Your task to perform on an android device: turn on data saver in the chrome app Image 0: 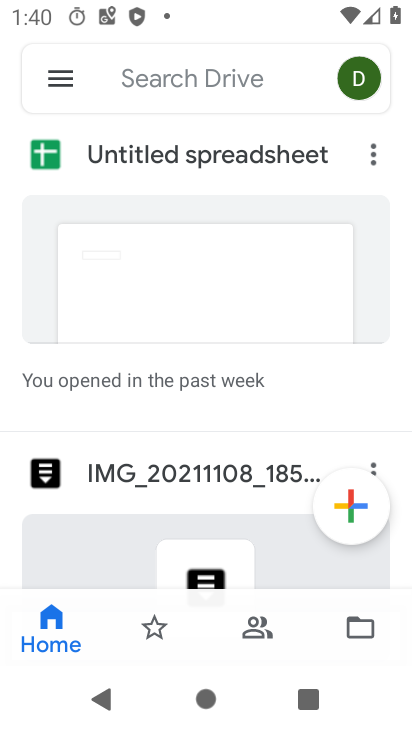
Step 0: press home button
Your task to perform on an android device: turn on data saver in the chrome app Image 1: 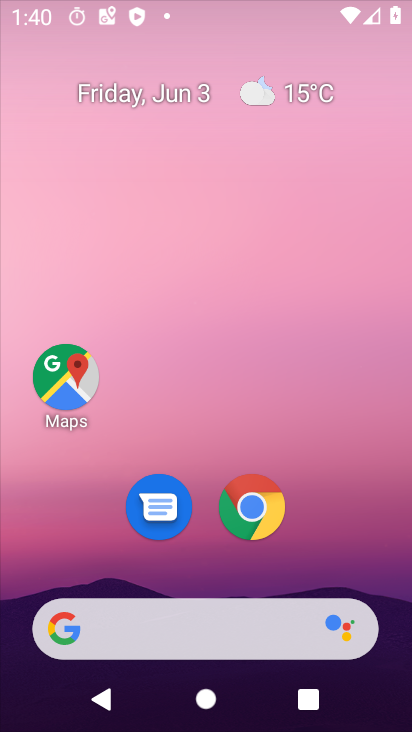
Step 1: drag from (395, 643) to (332, 15)
Your task to perform on an android device: turn on data saver in the chrome app Image 2: 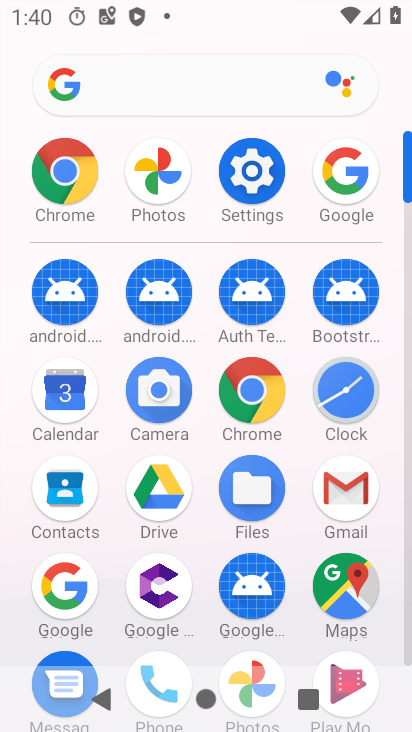
Step 2: click (258, 398)
Your task to perform on an android device: turn on data saver in the chrome app Image 3: 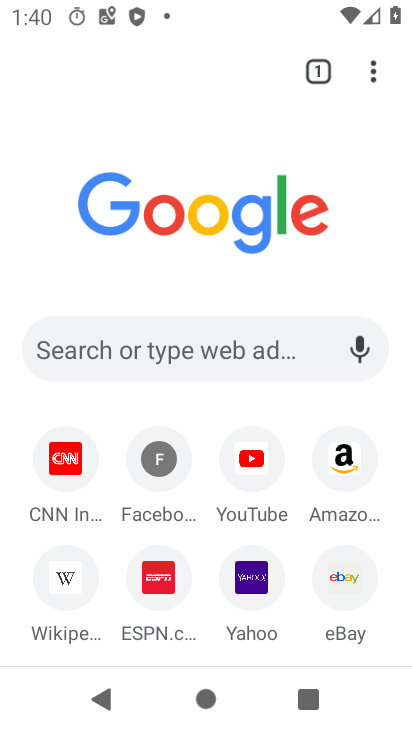
Step 3: click (377, 66)
Your task to perform on an android device: turn on data saver in the chrome app Image 4: 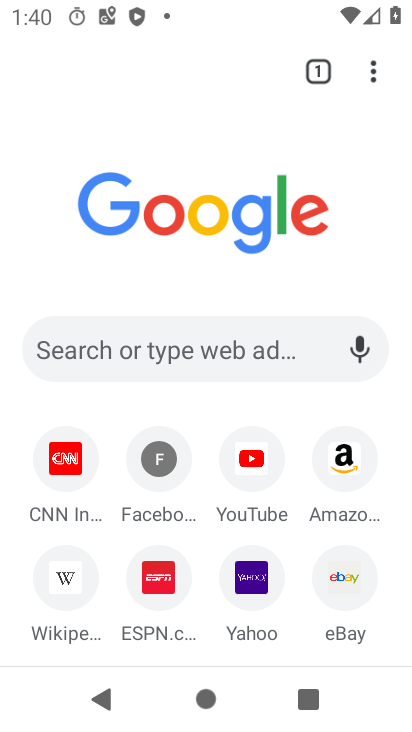
Step 4: click (373, 67)
Your task to perform on an android device: turn on data saver in the chrome app Image 5: 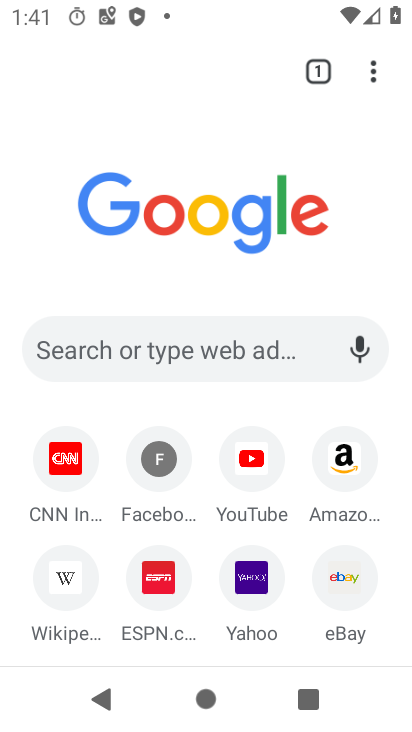
Step 5: click (368, 67)
Your task to perform on an android device: turn on data saver in the chrome app Image 6: 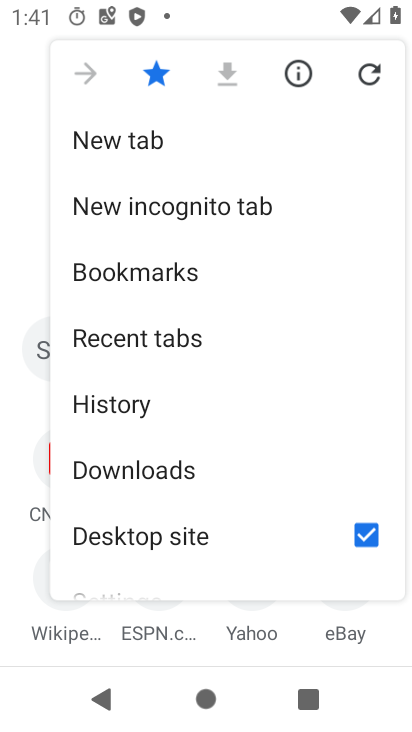
Step 6: drag from (219, 550) to (300, 178)
Your task to perform on an android device: turn on data saver in the chrome app Image 7: 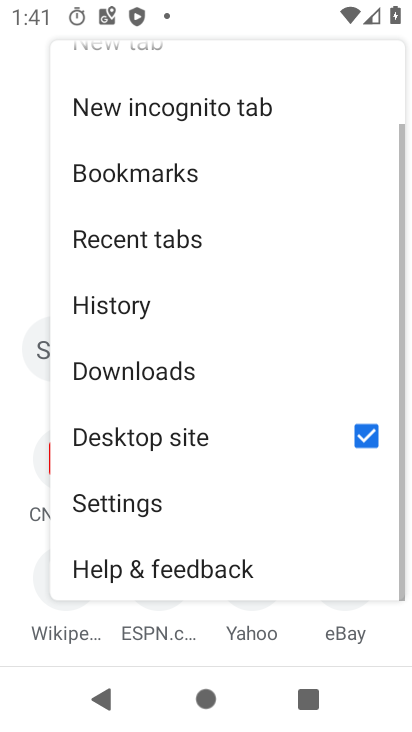
Step 7: click (146, 500)
Your task to perform on an android device: turn on data saver in the chrome app Image 8: 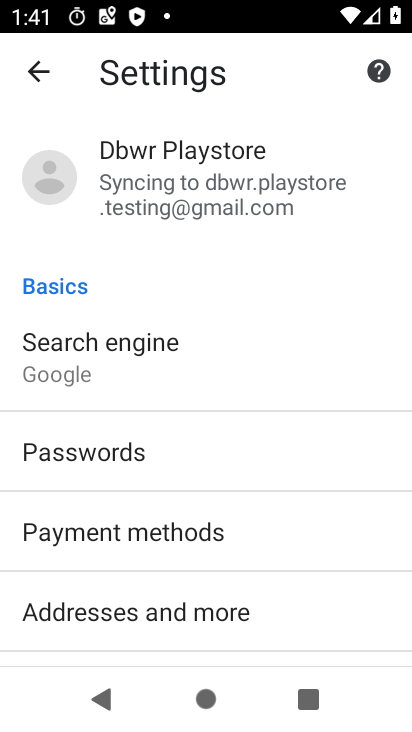
Step 8: drag from (211, 613) to (239, 180)
Your task to perform on an android device: turn on data saver in the chrome app Image 9: 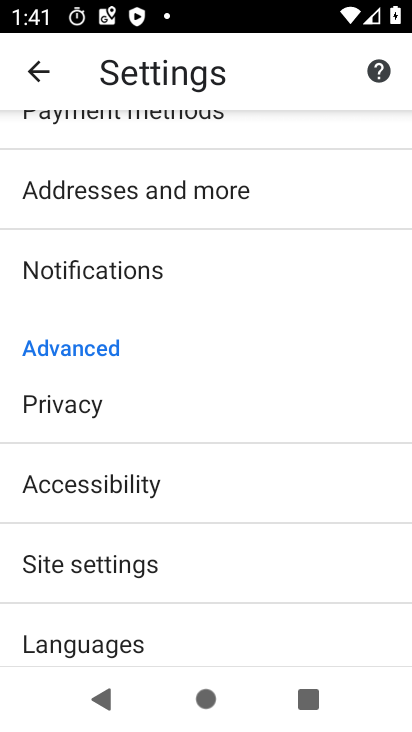
Step 9: drag from (157, 640) to (212, 291)
Your task to perform on an android device: turn on data saver in the chrome app Image 10: 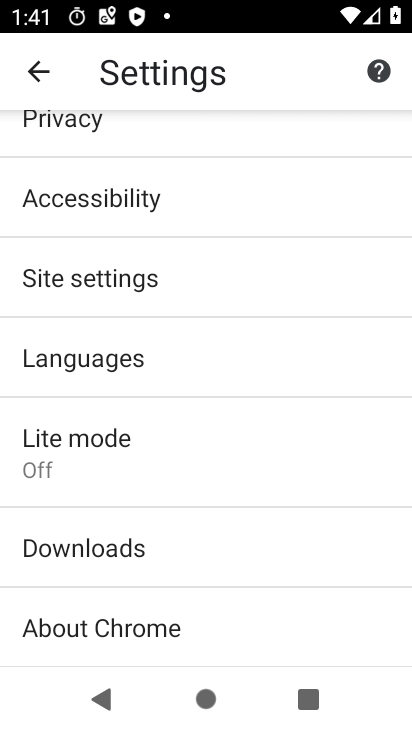
Step 10: click (192, 434)
Your task to perform on an android device: turn on data saver in the chrome app Image 11: 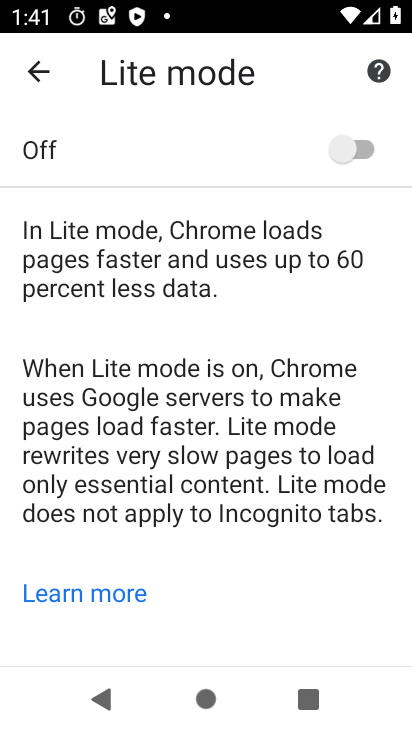
Step 11: click (334, 150)
Your task to perform on an android device: turn on data saver in the chrome app Image 12: 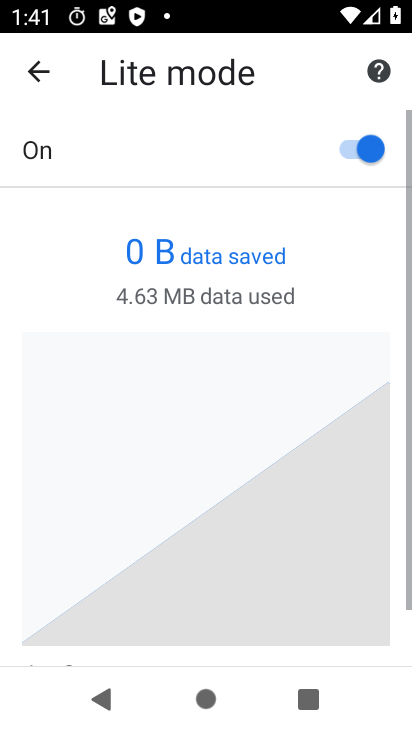
Step 12: task complete